Your task to perform on an android device: What's the weather today? Image 0: 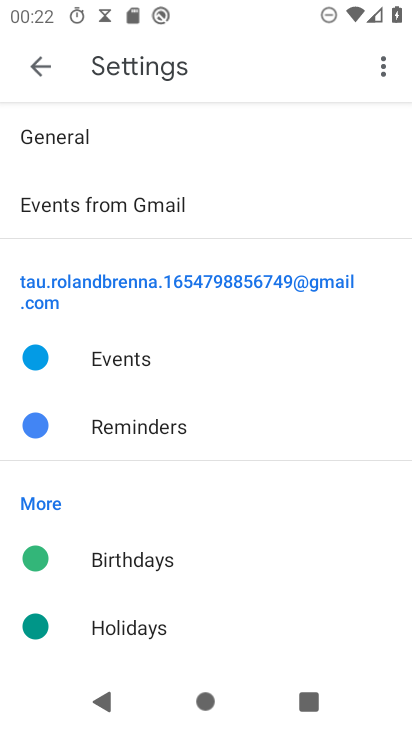
Step 0: press home button
Your task to perform on an android device: What's the weather today? Image 1: 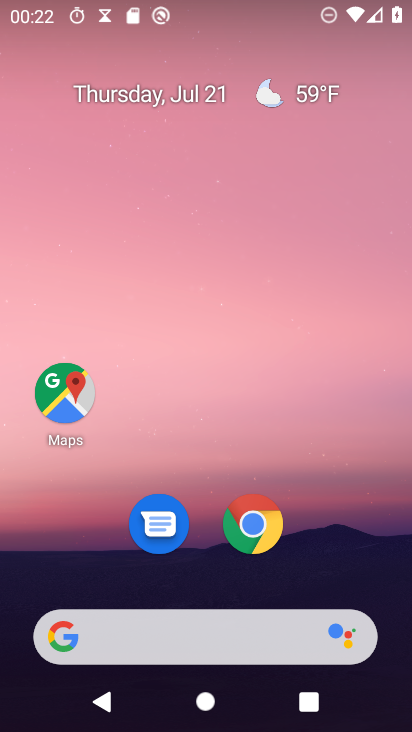
Step 1: click (163, 641)
Your task to perform on an android device: What's the weather today? Image 2: 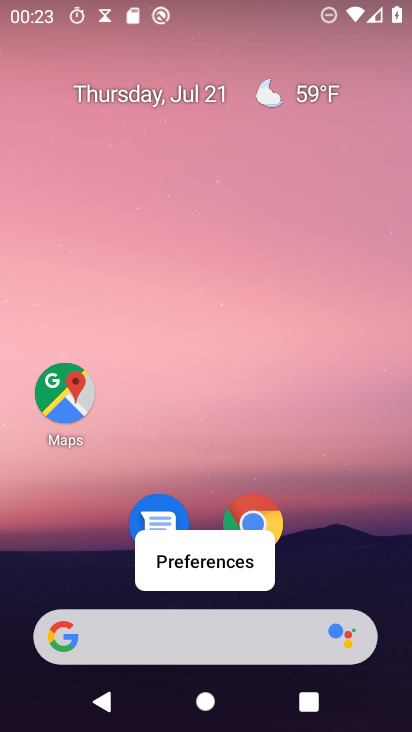
Step 2: click (136, 640)
Your task to perform on an android device: What's the weather today? Image 3: 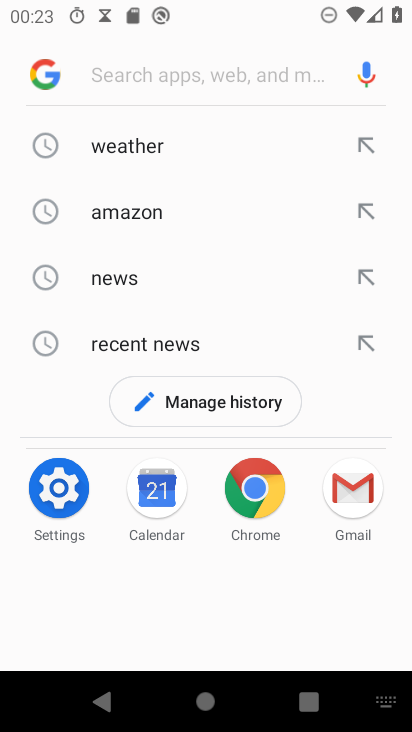
Step 3: click (140, 144)
Your task to perform on an android device: What's the weather today? Image 4: 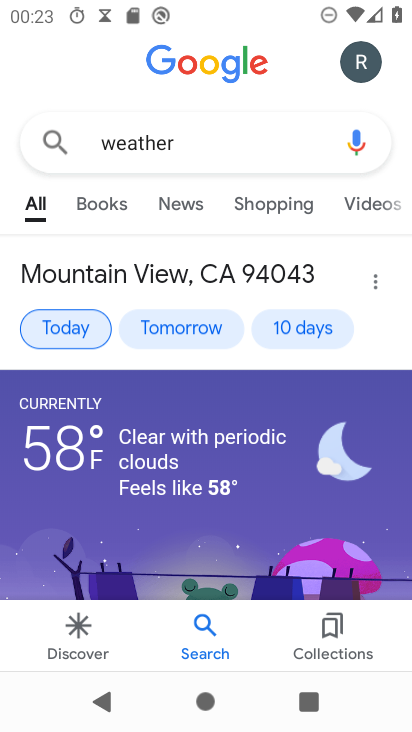
Step 4: task complete